Your task to perform on an android device: Open internet settings Image 0: 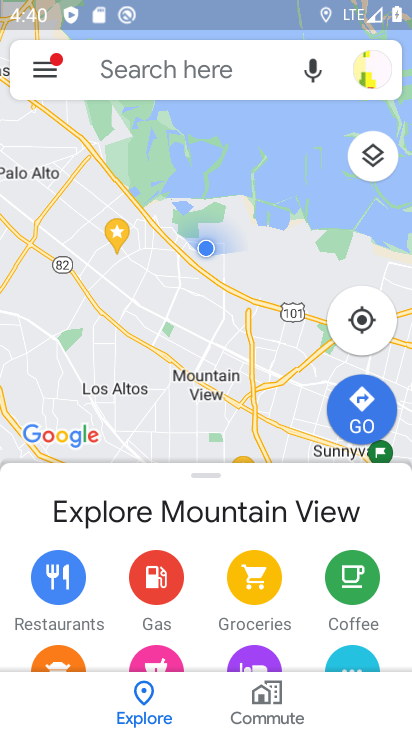
Step 0: drag from (193, 12) to (217, 698)
Your task to perform on an android device: Open internet settings Image 1: 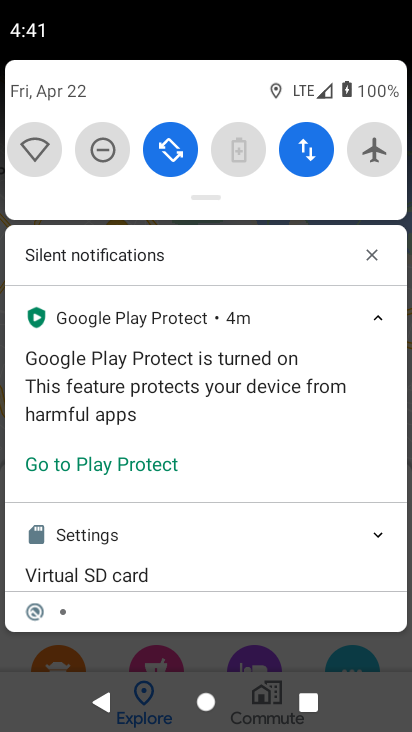
Step 1: drag from (213, 83) to (254, 698)
Your task to perform on an android device: Open internet settings Image 2: 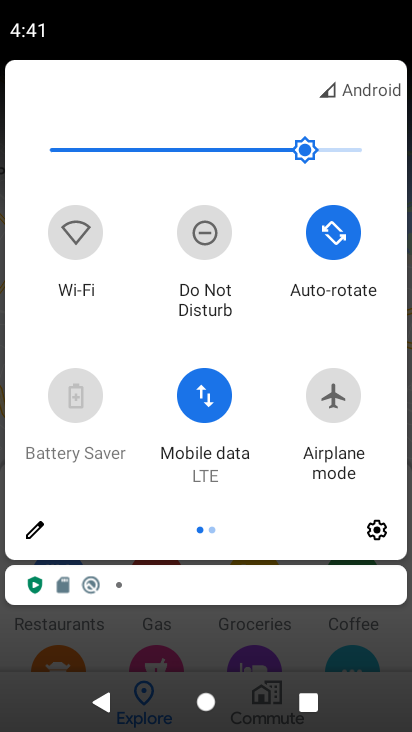
Step 2: click (377, 527)
Your task to perform on an android device: Open internet settings Image 3: 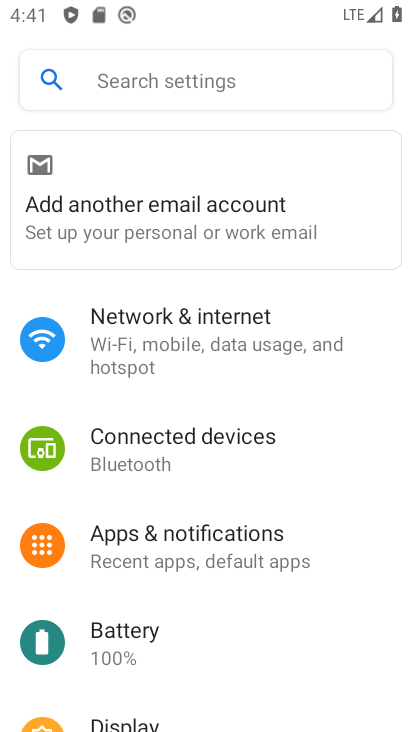
Step 3: click (248, 339)
Your task to perform on an android device: Open internet settings Image 4: 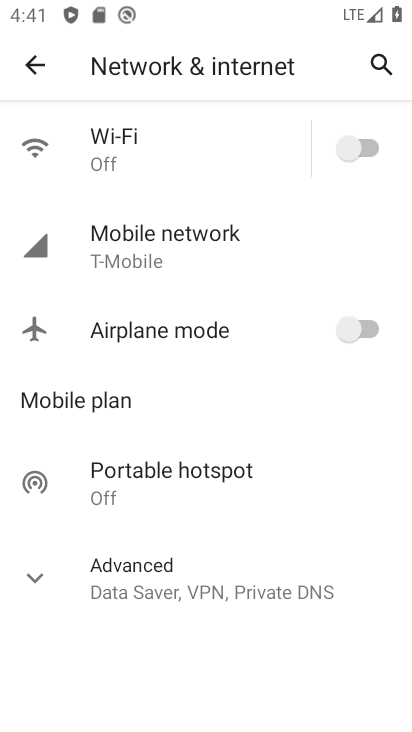
Step 4: click (218, 232)
Your task to perform on an android device: Open internet settings Image 5: 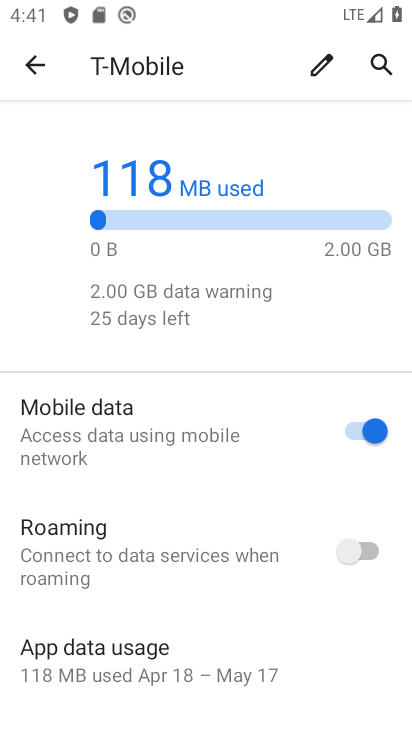
Step 5: task complete